Your task to perform on an android device: turn off notifications in google photos Image 0: 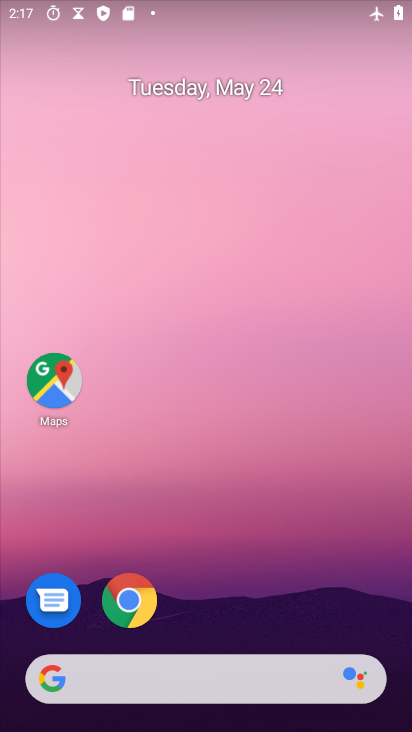
Step 0: drag from (259, 393) to (218, 27)
Your task to perform on an android device: turn off notifications in google photos Image 1: 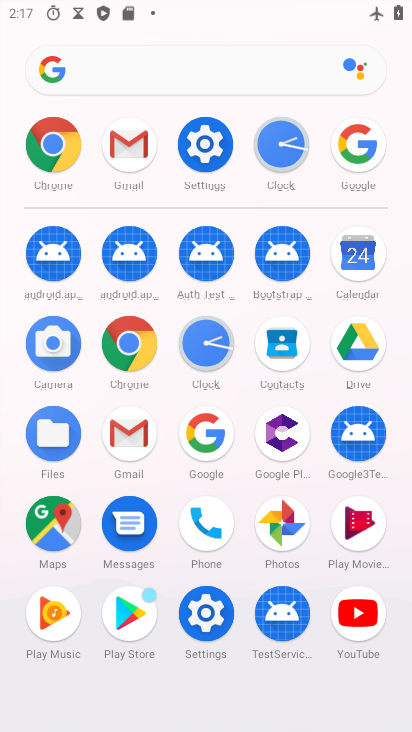
Step 1: click (284, 523)
Your task to perform on an android device: turn off notifications in google photos Image 2: 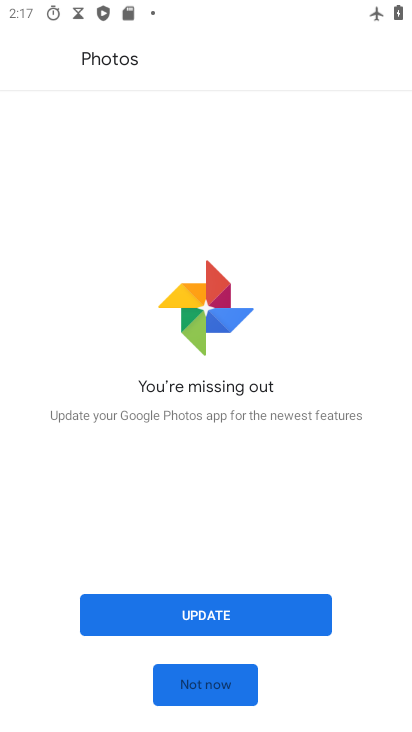
Step 2: click (257, 621)
Your task to perform on an android device: turn off notifications in google photos Image 3: 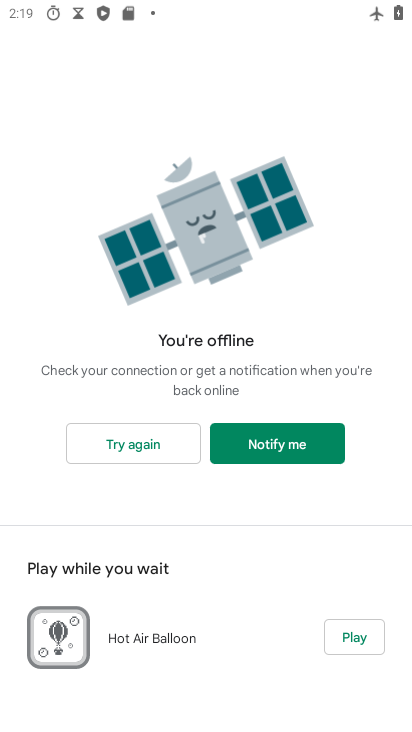
Step 3: task complete